Your task to perform on an android device: toggle show notifications on the lock screen Image 0: 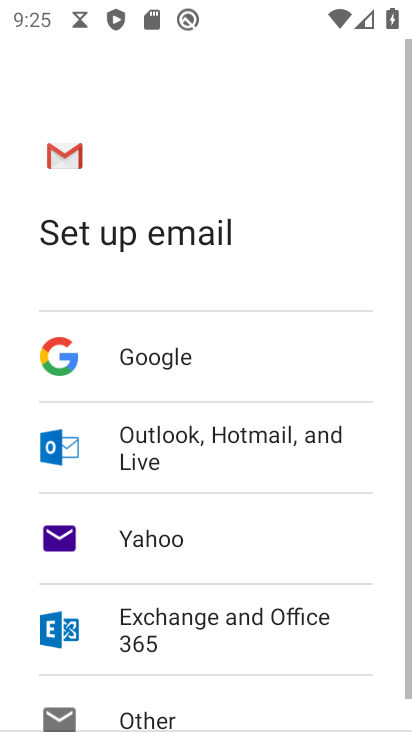
Step 0: press home button
Your task to perform on an android device: toggle show notifications on the lock screen Image 1: 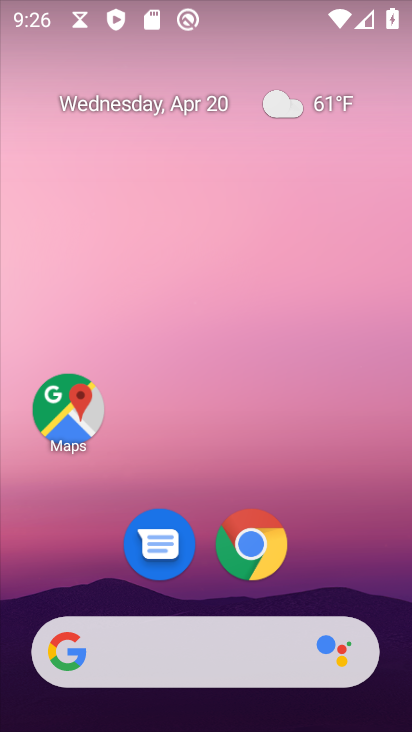
Step 1: drag from (118, 650) to (261, 45)
Your task to perform on an android device: toggle show notifications on the lock screen Image 2: 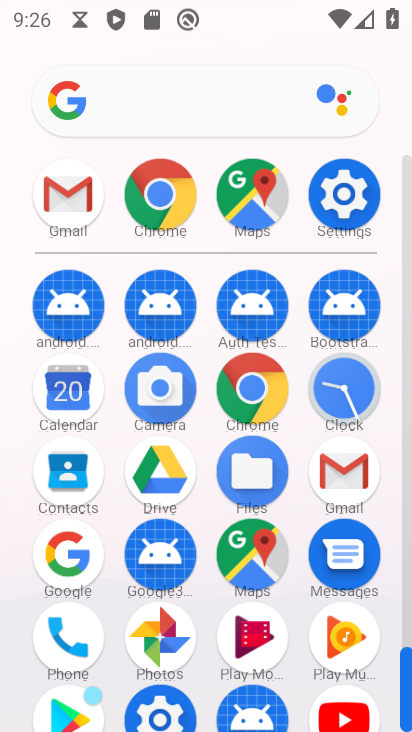
Step 2: click (338, 208)
Your task to perform on an android device: toggle show notifications on the lock screen Image 3: 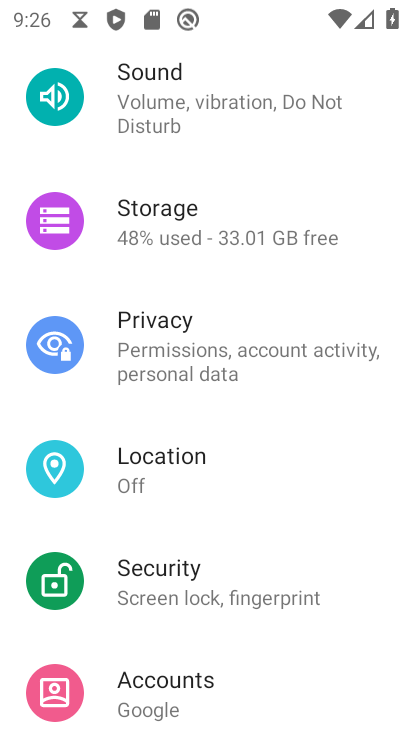
Step 3: drag from (272, 157) to (214, 603)
Your task to perform on an android device: toggle show notifications on the lock screen Image 4: 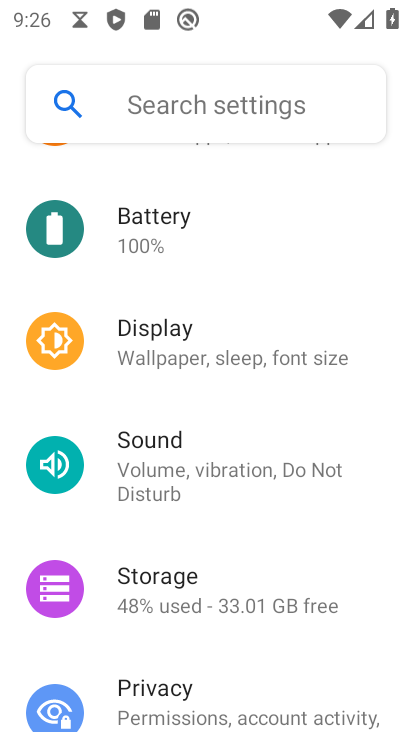
Step 4: drag from (261, 274) to (216, 585)
Your task to perform on an android device: toggle show notifications on the lock screen Image 5: 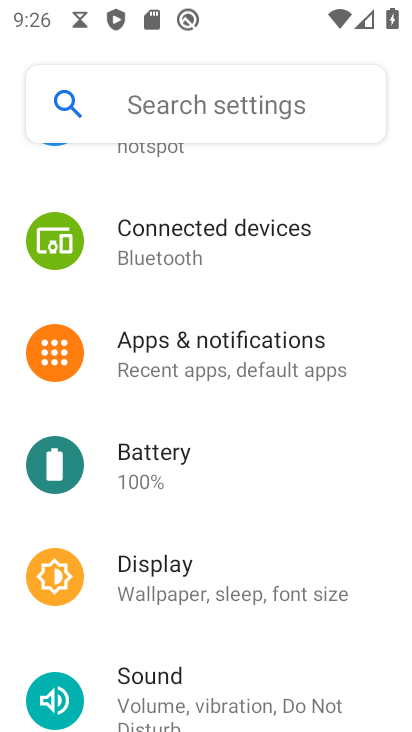
Step 5: click (247, 361)
Your task to perform on an android device: toggle show notifications on the lock screen Image 6: 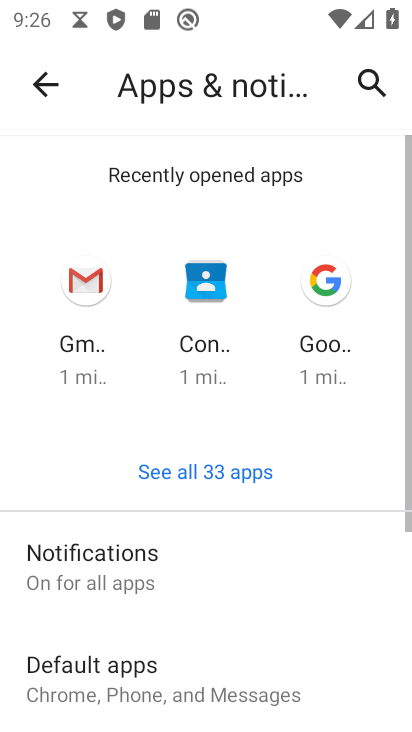
Step 6: click (117, 563)
Your task to perform on an android device: toggle show notifications on the lock screen Image 7: 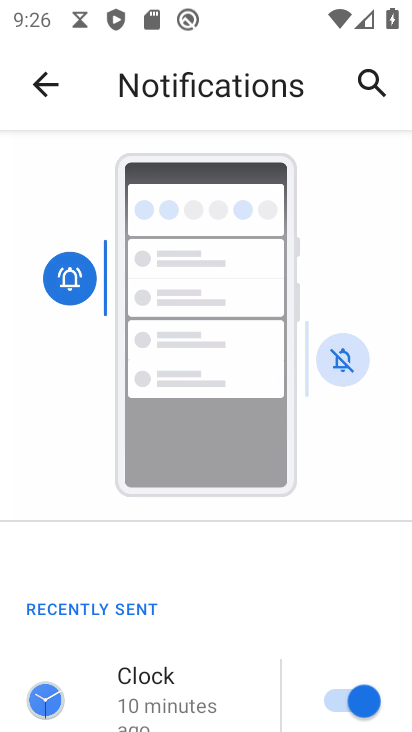
Step 7: drag from (134, 658) to (352, 159)
Your task to perform on an android device: toggle show notifications on the lock screen Image 8: 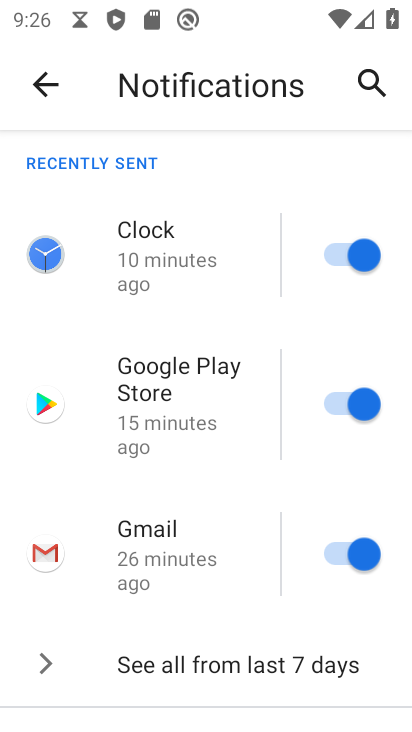
Step 8: drag from (155, 632) to (379, 55)
Your task to perform on an android device: toggle show notifications on the lock screen Image 9: 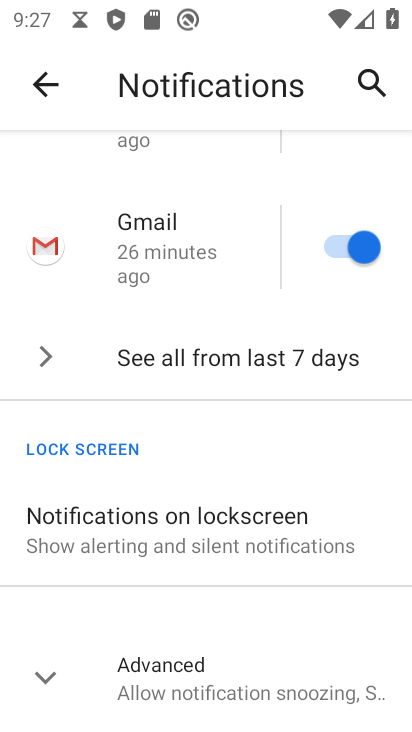
Step 9: click (217, 532)
Your task to perform on an android device: toggle show notifications on the lock screen Image 10: 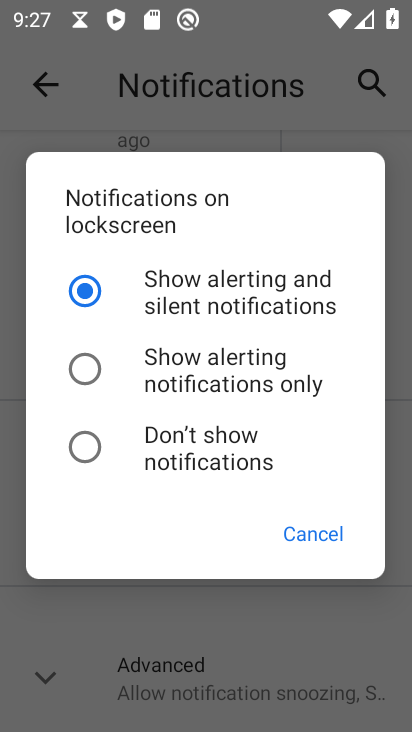
Step 10: click (84, 444)
Your task to perform on an android device: toggle show notifications on the lock screen Image 11: 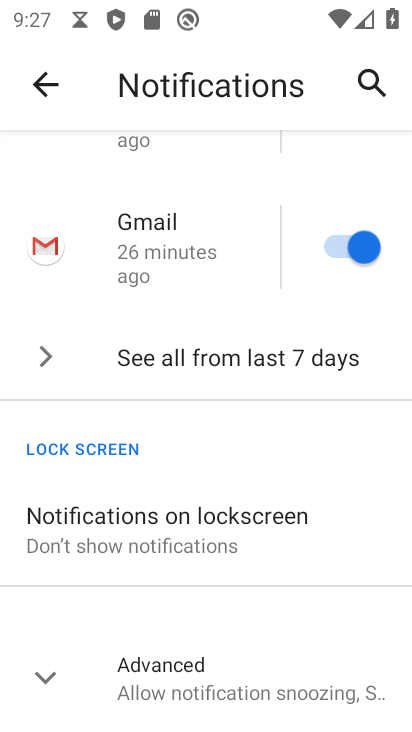
Step 11: task complete